Your task to perform on an android device: When is my next meeting? Image 0: 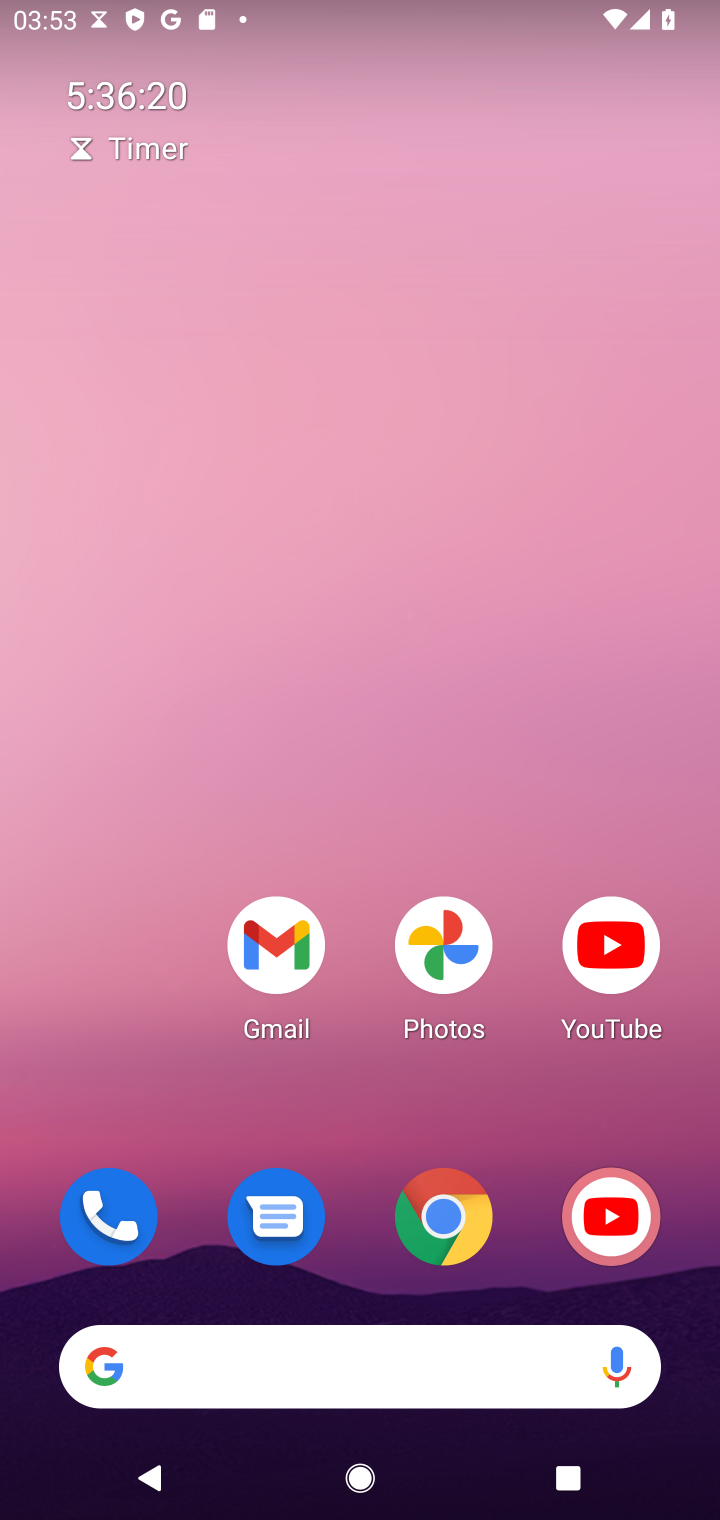
Step 0: drag from (340, 1111) to (368, 169)
Your task to perform on an android device: When is my next meeting? Image 1: 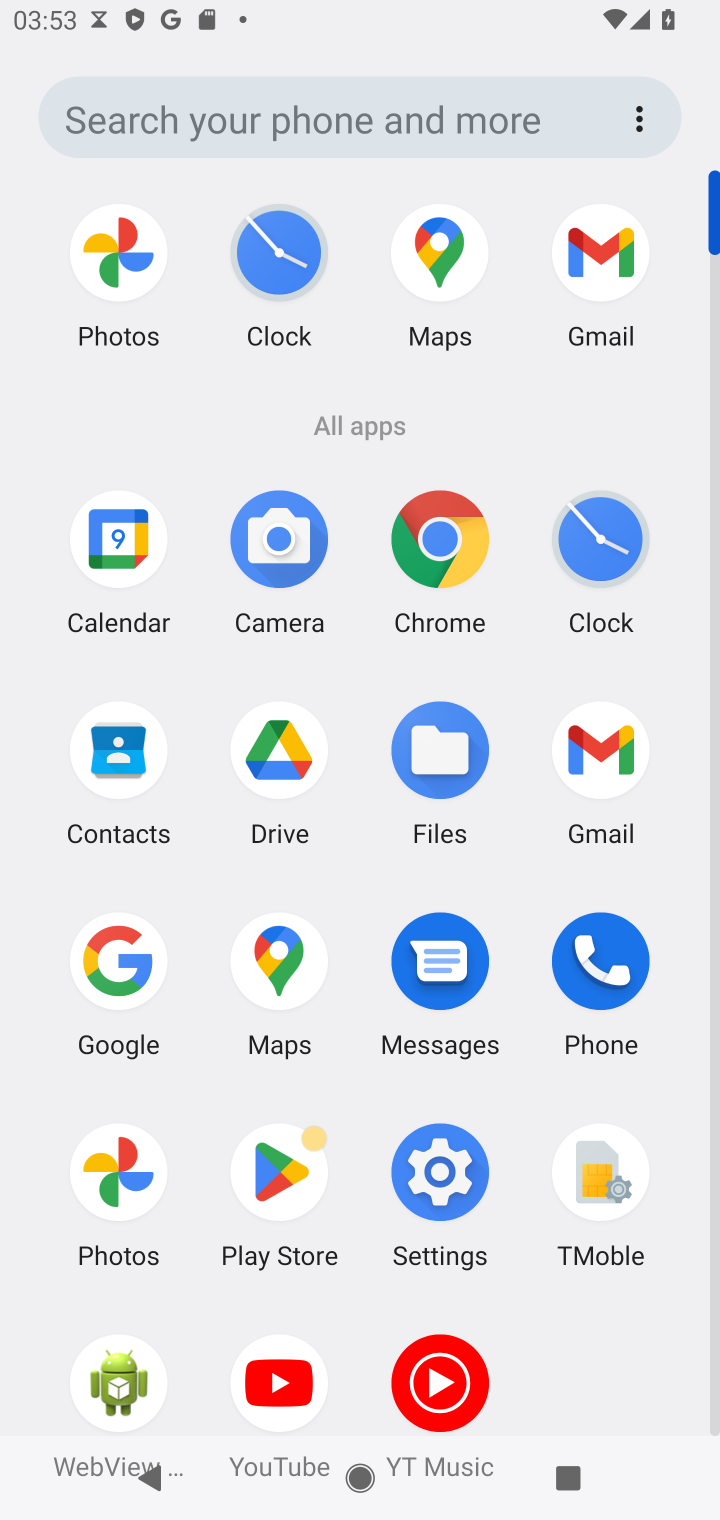
Step 1: click (109, 554)
Your task to perform on an android device: When is my next meeting? Image 2: 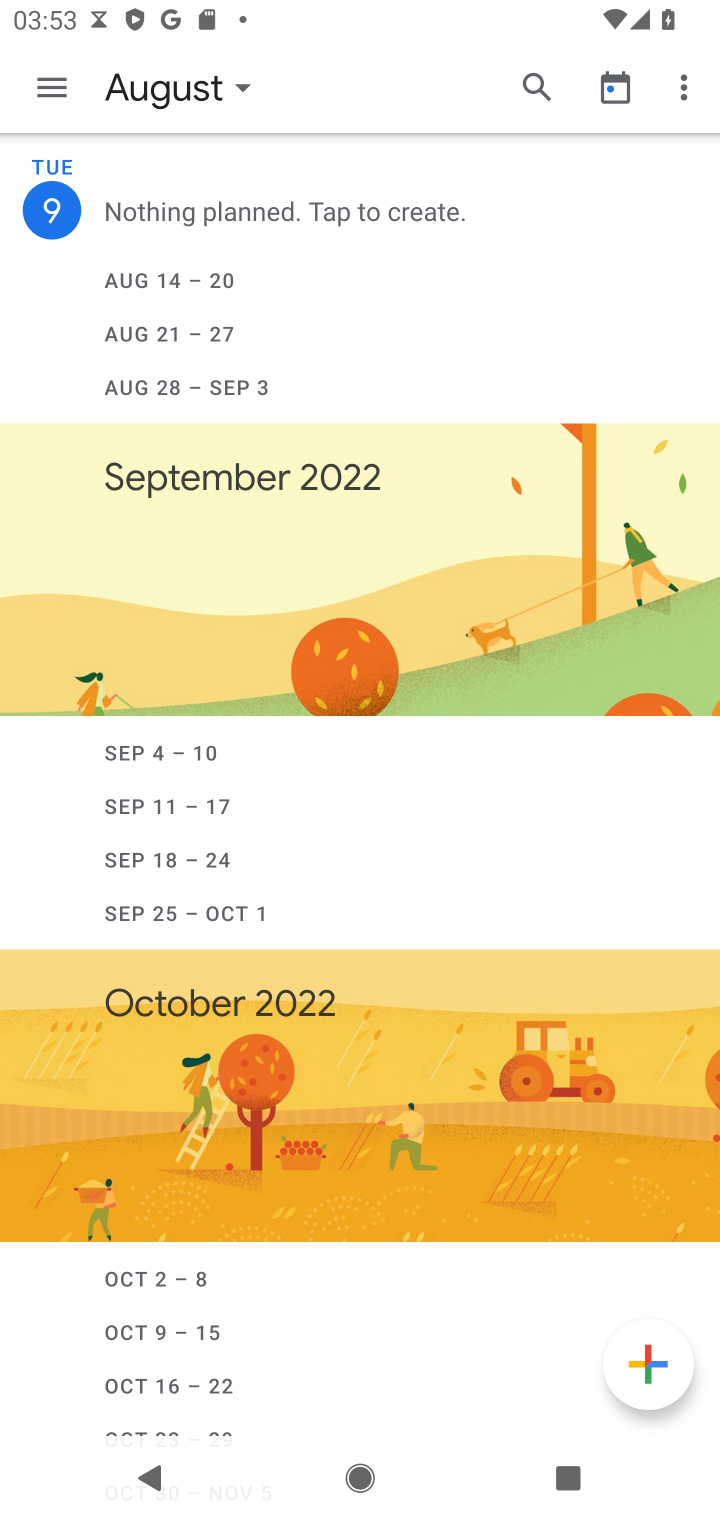
Step 2: click (172, 104)
Your task to perform on an android device: When is my next meeting? Image 3: 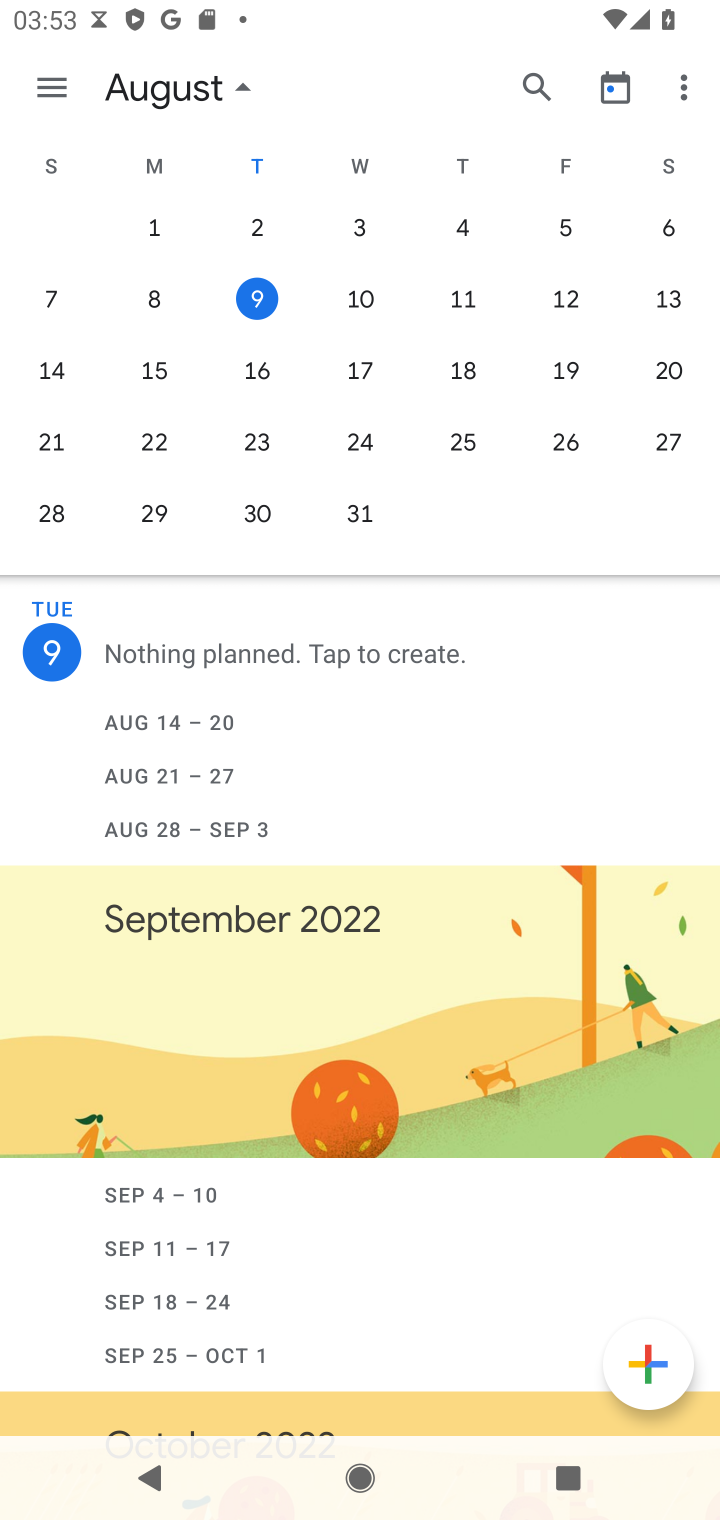
Step 3: click (254, 290)
Your task to perform on an android device: When is my next meeting? Image 4: 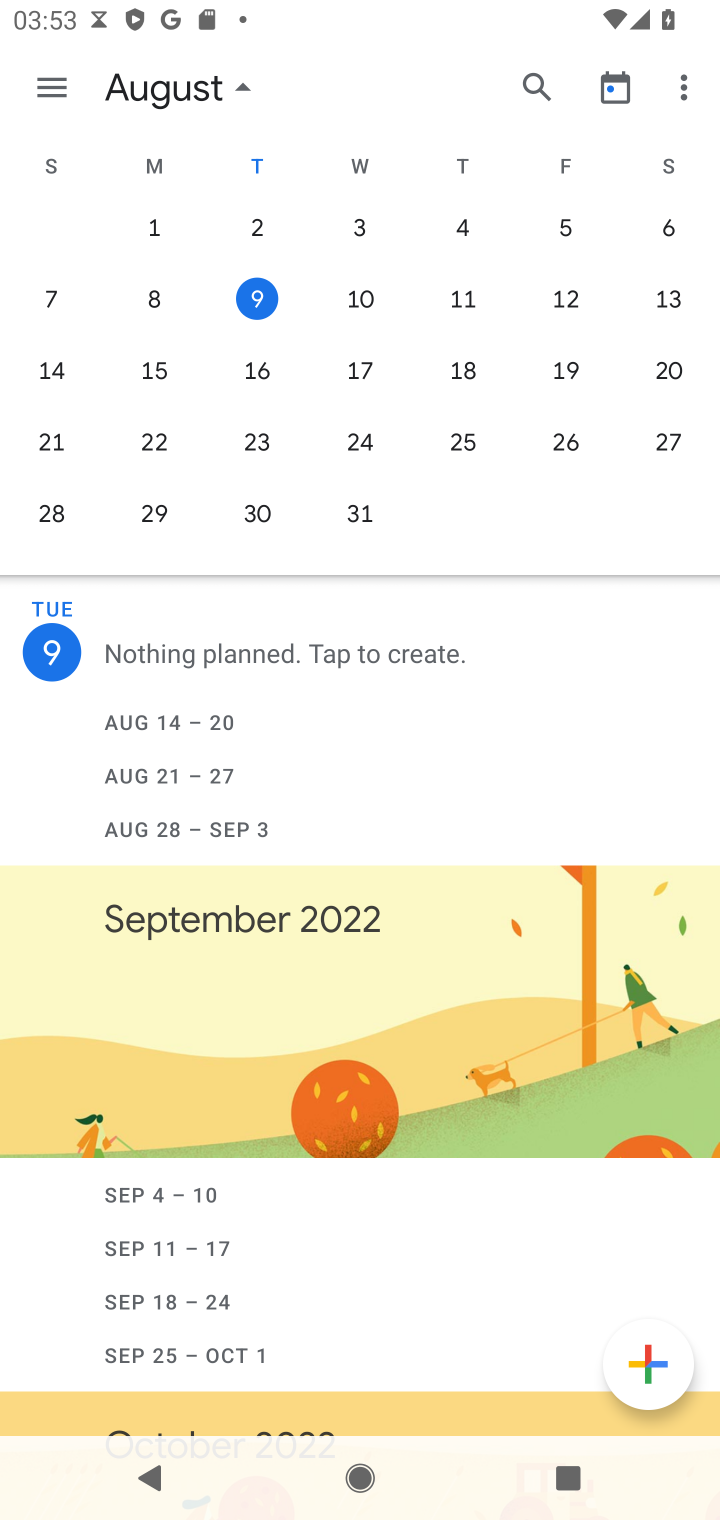
Step 4: task complete